Your task to perform on an android device: stop showing notifications on the lock screen Image 0: 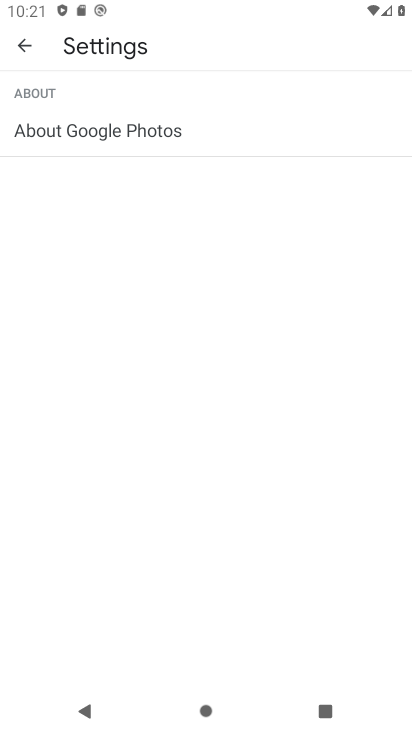
Step 0: press home button
Your task to perform on an android device: stop showing notifications on the lock screen Image 1: 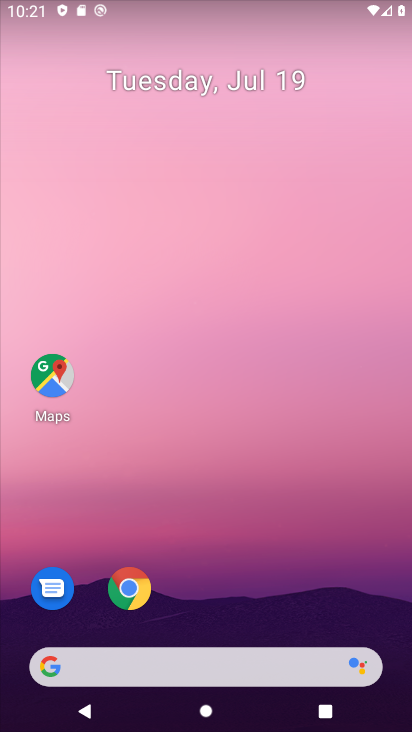
Step 1: drag from (386, 665) to (247, 64)
Your task to perform on an android device: stop showing notifications on the lock screen Image 2: 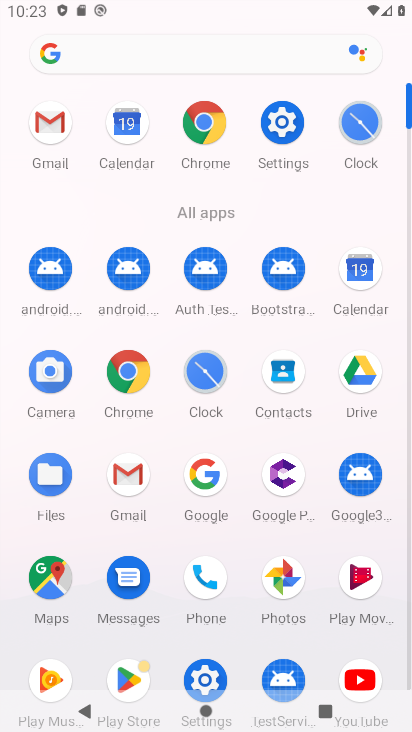
Step 2: click (208, 666)
Your task to perform on an android device: stop showing notifications on the lock screen Image 3: 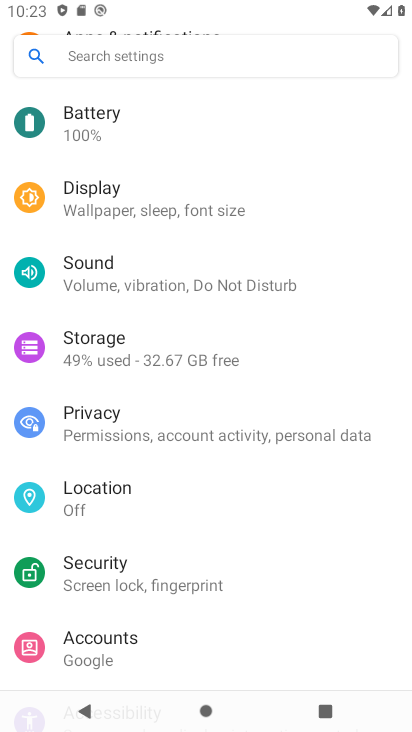
Step 3: drag from (182, 214) to (195, 633)
Your task to perform on an android device: stop showing notifications on the lock screen Image 4: 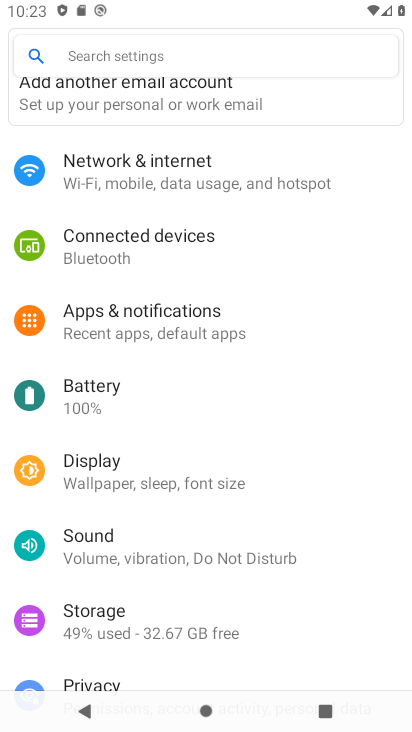
Step 4: click (172, 332)
Your task to perform on an android device: stop showing notifications on the lock screen Image 5: 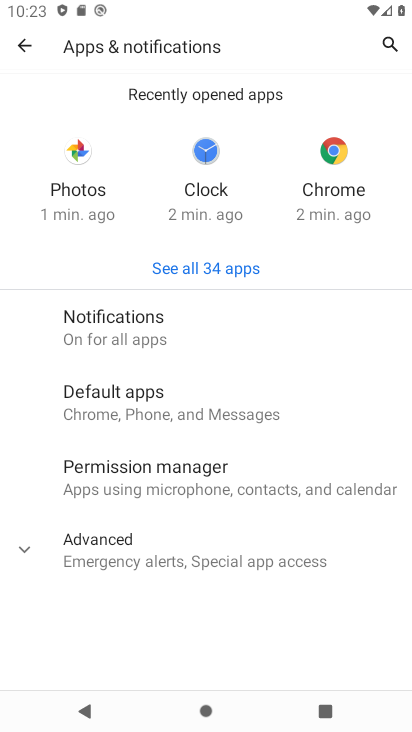
Step 5: click (168, 335)
Your task to perform on an android device: stop showing notifications on the lock screen Image 6: 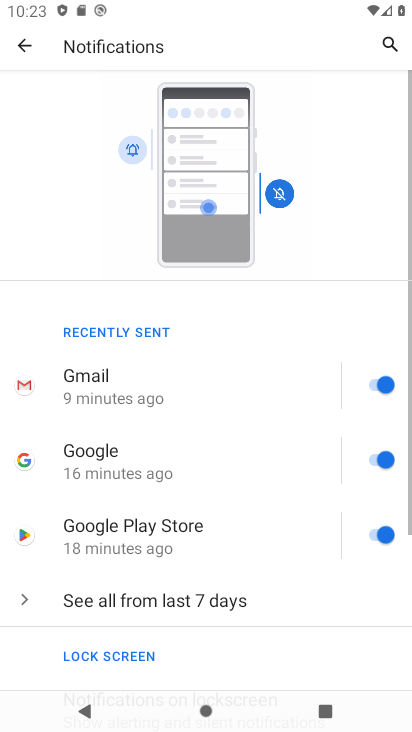
Step 6: drag from (158, 645) to (195, 63)
Your task to perform on an android device: stop showing notifications on the lock screen Image 7: 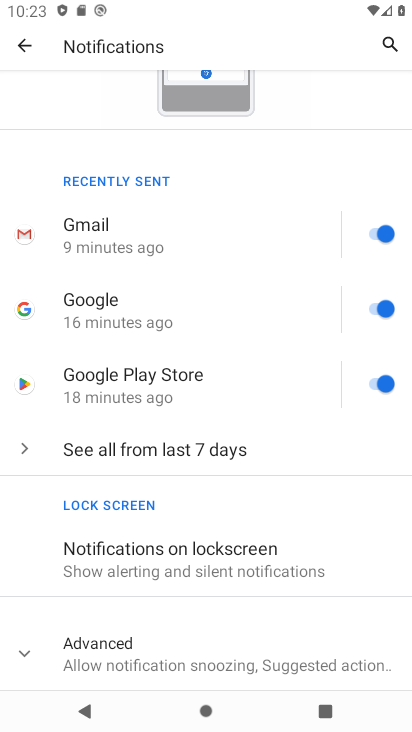
Step 7: click (241, 575)
Your task to perform on an android device: stop showing notifications on the lock screen Image 8: 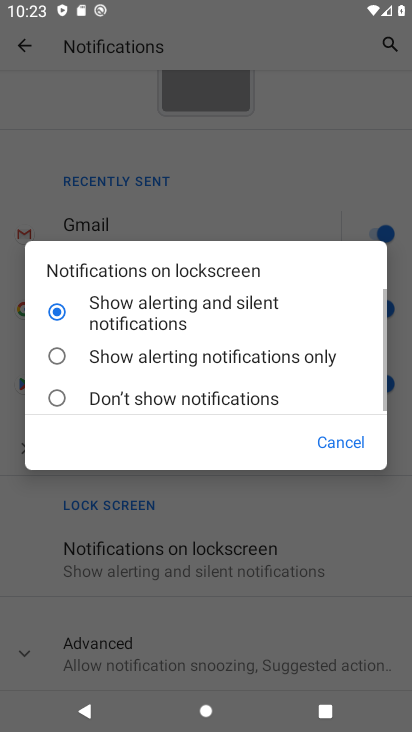
Step 8: click (90, 395)
Your task to perform on an android device: stop showing notifications on the lock screen Image 9: 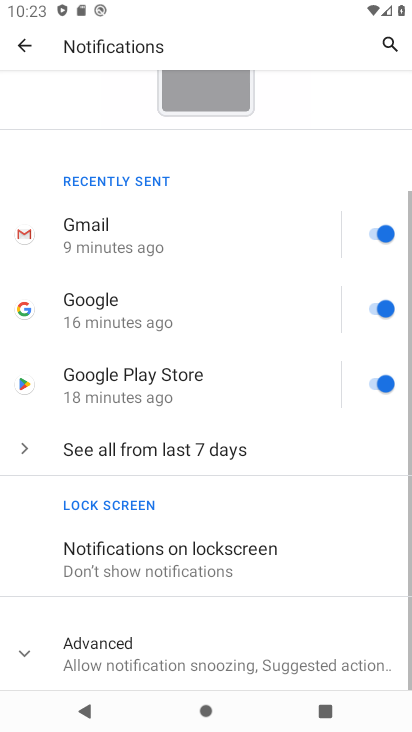
Step 9: task complete